Your task to perform on an android device: open a bookmark in the chrome app Image 0: 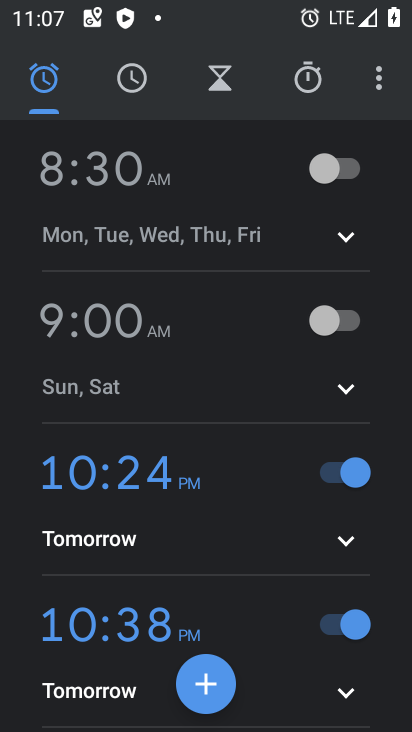
Step 0: press home button
Your task to perform on an android device: open a bookmark in the chrome app Image 1: 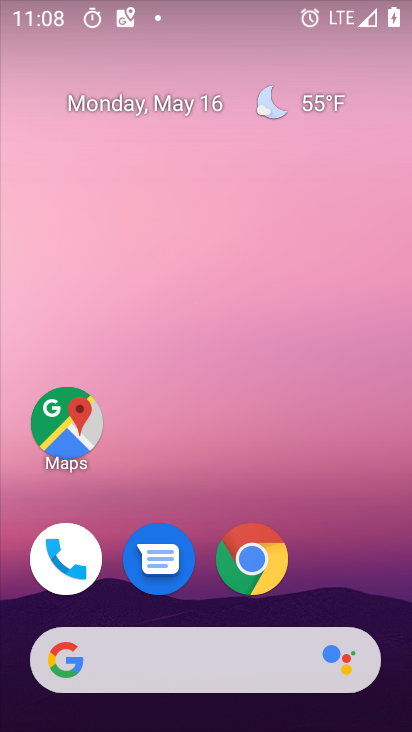
Step 1: click (240, 558)
Your task to perform on an android device: open a bookmark in the chrome app Image 2: 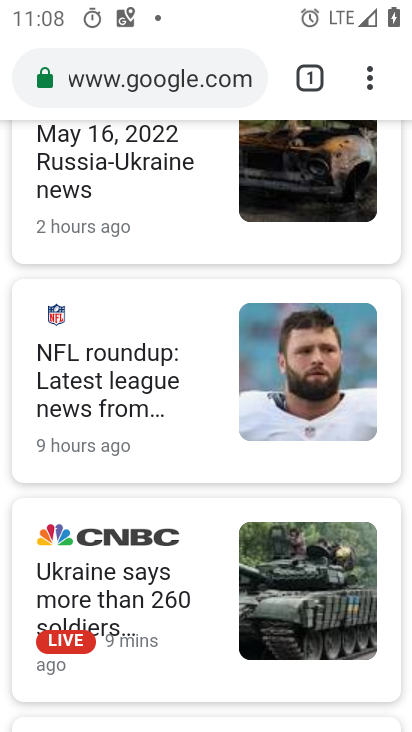
Step 2: drag from (374, 77) to (155, 308)
Your task to perform on an android device: open a bookmark in the chrome app Image 3: 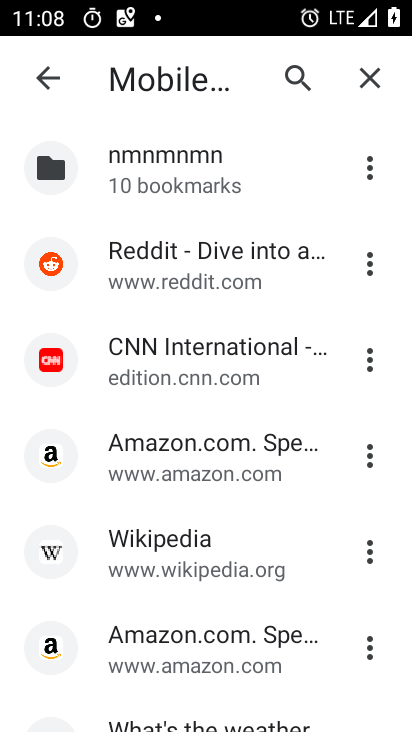
Step 3: click (178, 269)
Your task to perform on an android device: open a bookmark in the chrome app Image 4: 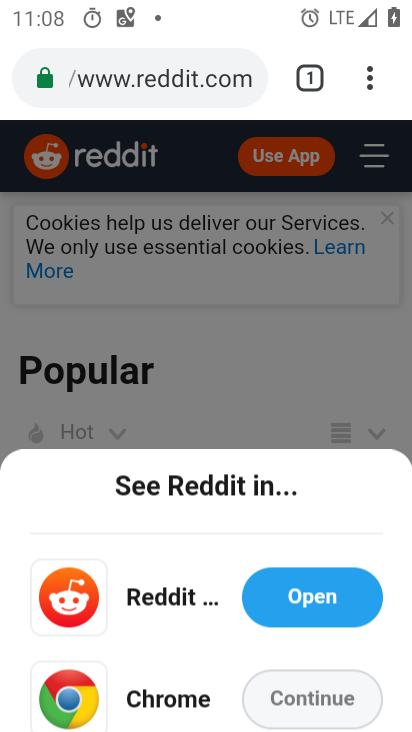
Step 4: task complete